Your task to perform on an android device: empty trash in google photos Image 0: 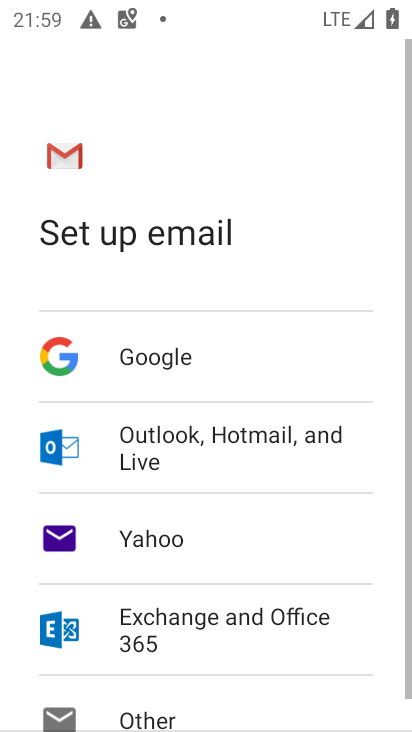
Step 0: press home button
Your task to perform on an android device: empty trash in google photos Image 1: 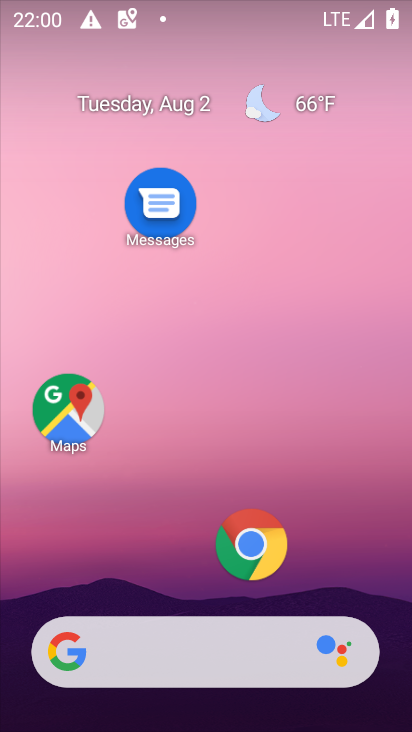
Step 1: drag from (175, 574) to (162, 228)
Your task to perform on an android device: empty trash in google photos Image 2: 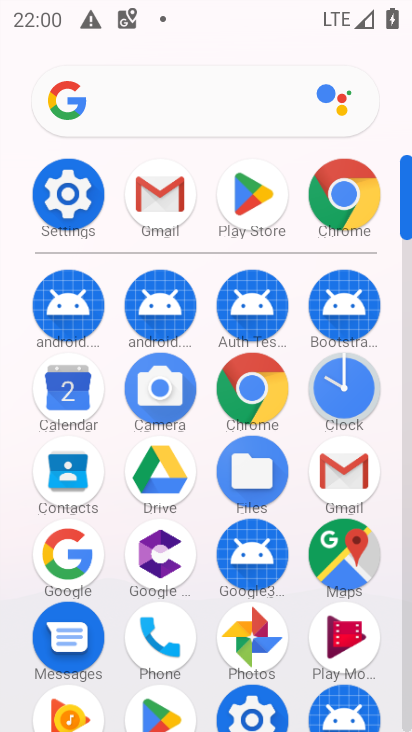
Step 2: click (233, 641)
Your task to perform on an android device: empty trash in google photos Image 3: 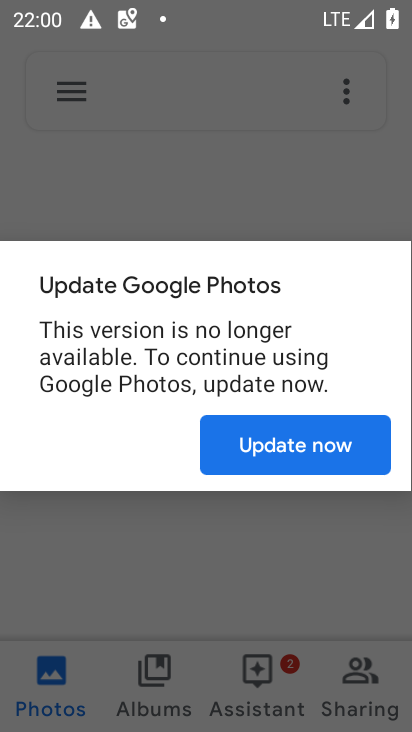
Step 3: click (292, 456)
Your task to perform on an android device: empty trash in google photos Image 4: 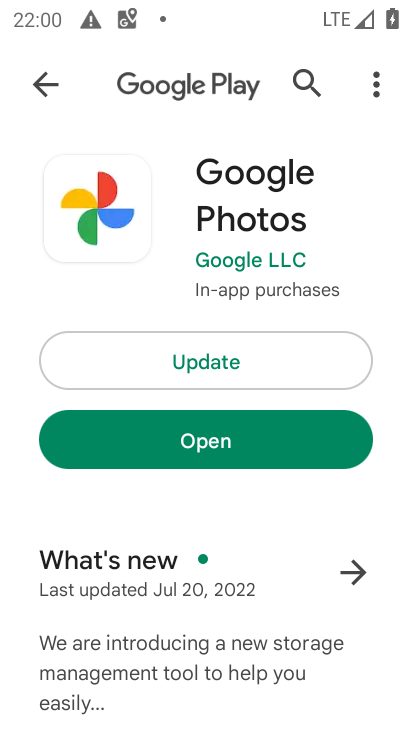
Step 4: click (197, 446)
Your task to perform on an android device: empty trash in google photos Image 5: 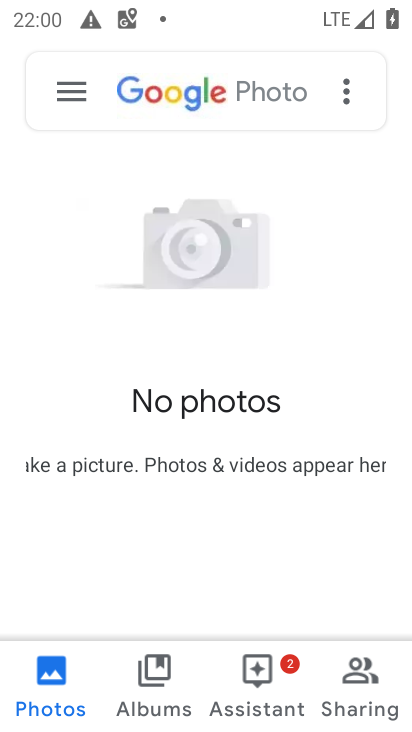
Step 5: click (60, 93)
Your task to perform on an android device: empty trash in google photos Image 6: 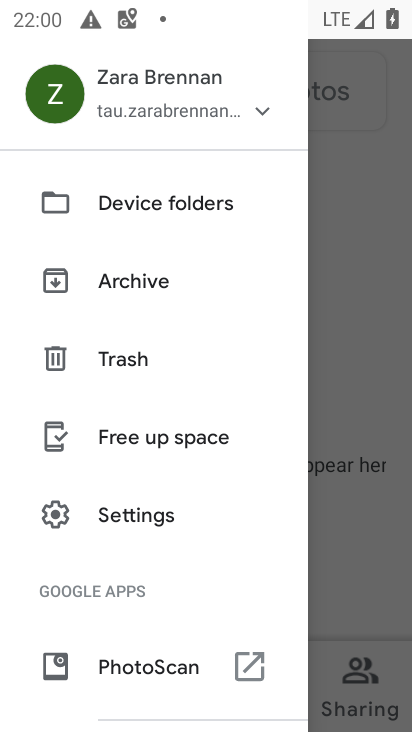
Step 6: click (113, 374)
Your task to perform on an android device: empty trash in google photos Image 7: 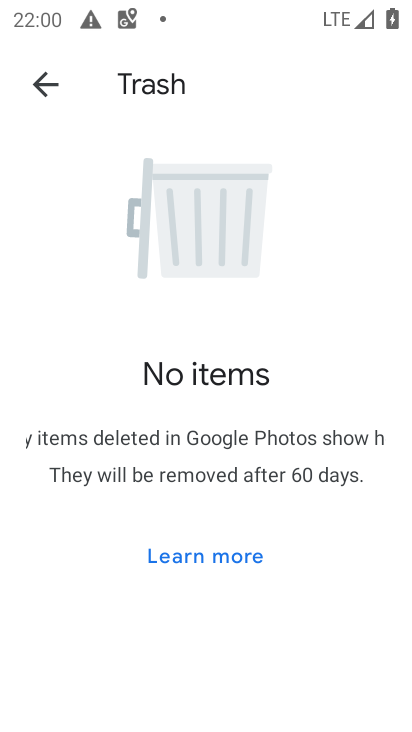
Step 7: task complete